Your task to perform on an android device: add a contact Image 0: 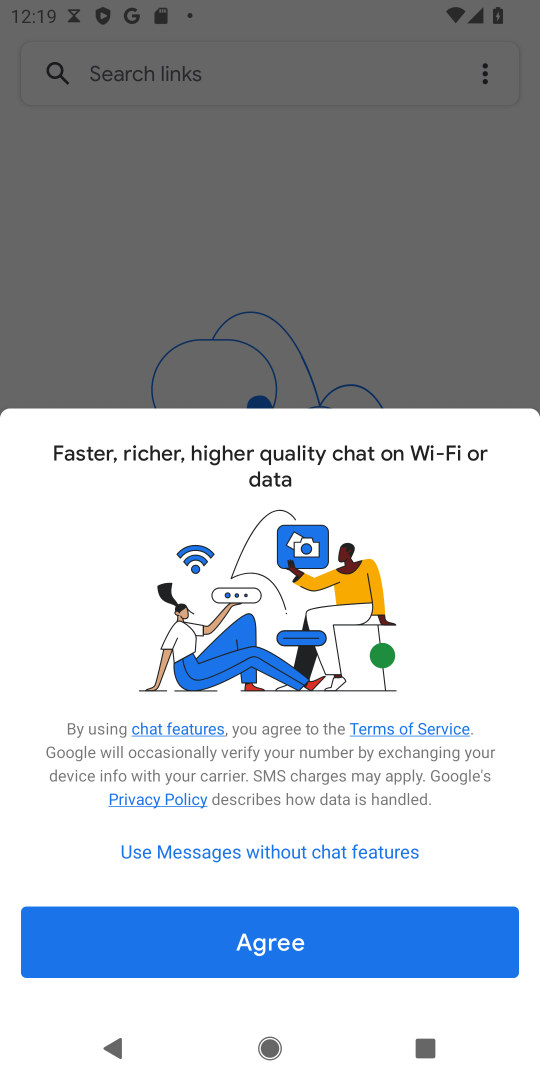
Step 0: press home button
Your task to perform on an android device: add a contact Image 1: 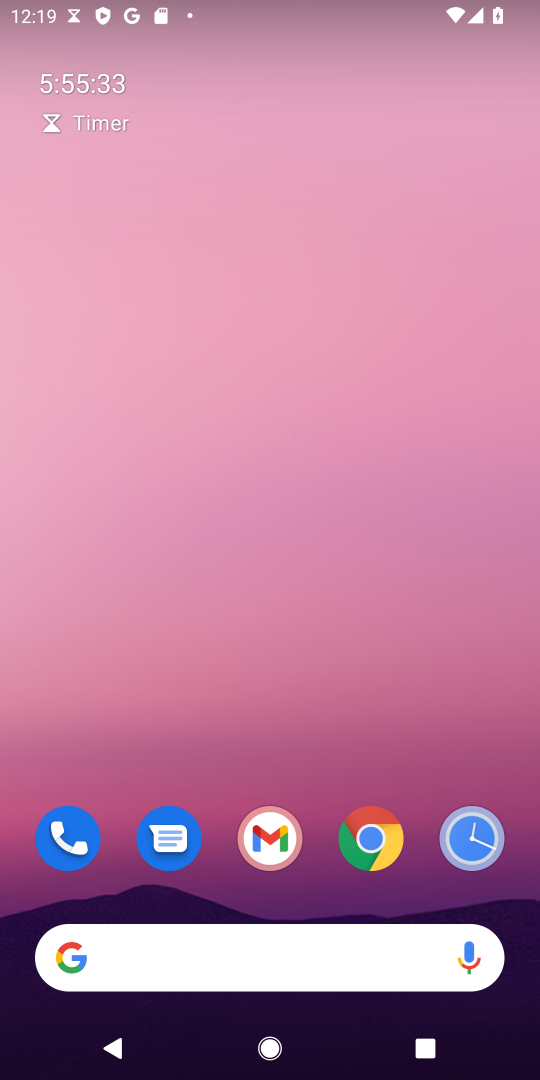
Step 1: drag from (262, 767) to (176, 17)
Your task to perform on an android device: add a contact Image 2: 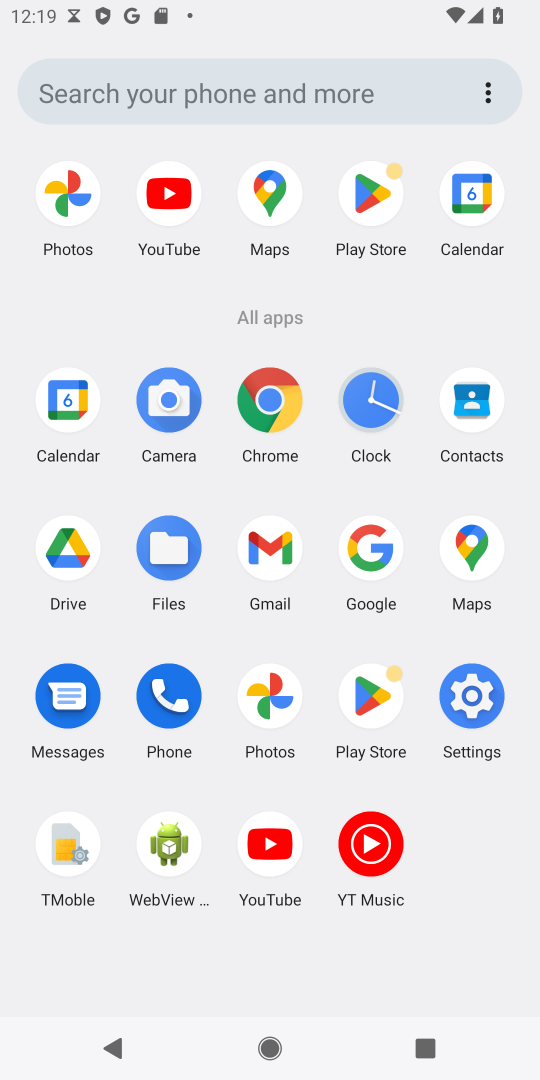
Step 2: click (479, 403)
Your task to perform on an android device: add a contact Image 3: 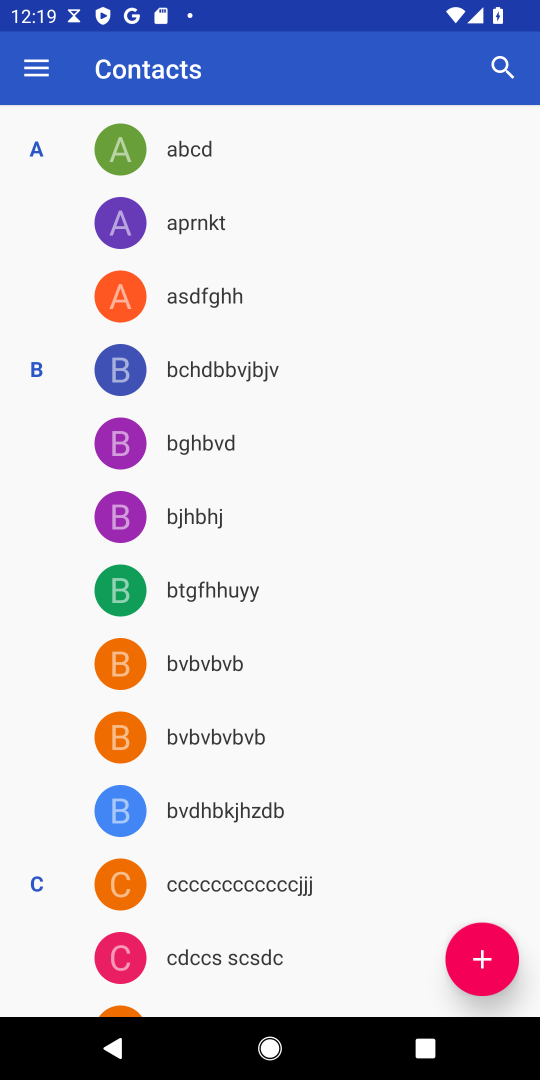
Step 3: click (470, 960)
Your task to perform on an android device: add a contact Image 4: 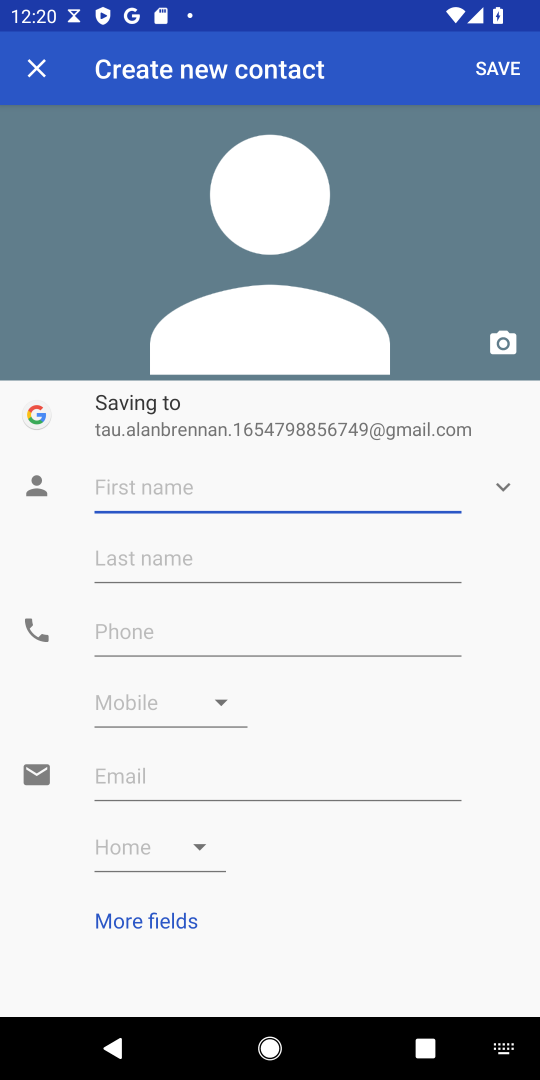
Step 4: type "mnjkhui"
Your task to perform on an android device: add a contact Image 5: 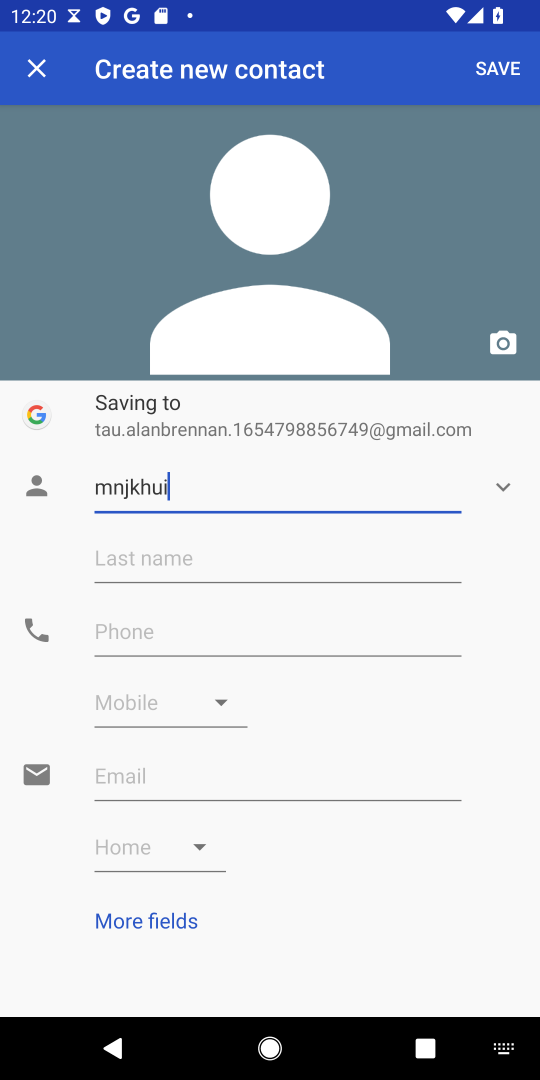
Step 5: click (206, 646)
Your task to perform on an android device: add a contact Image 6: 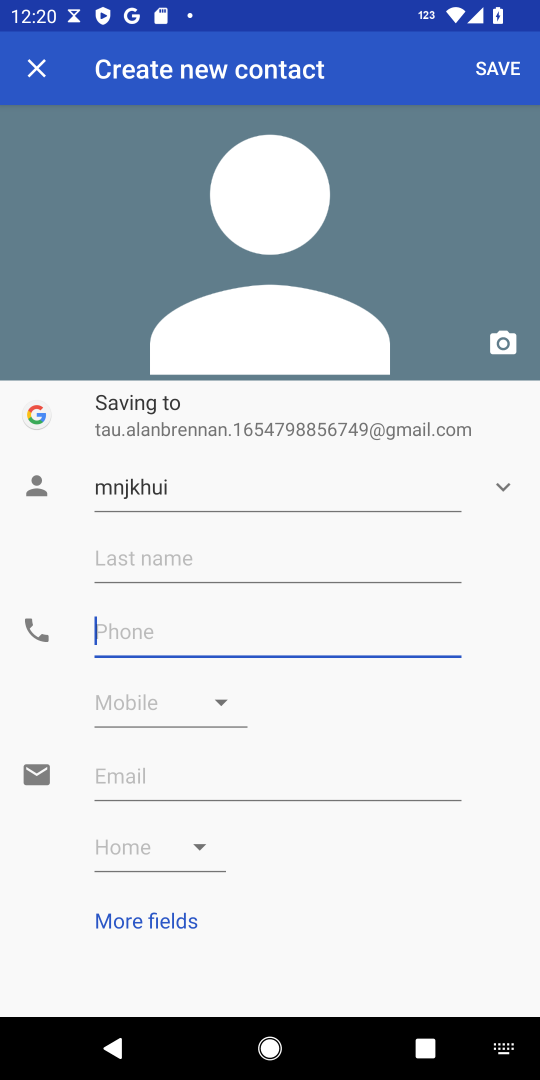
Step 6: type "787878788"
Your task to perform on an android device: add a contact Image 7: 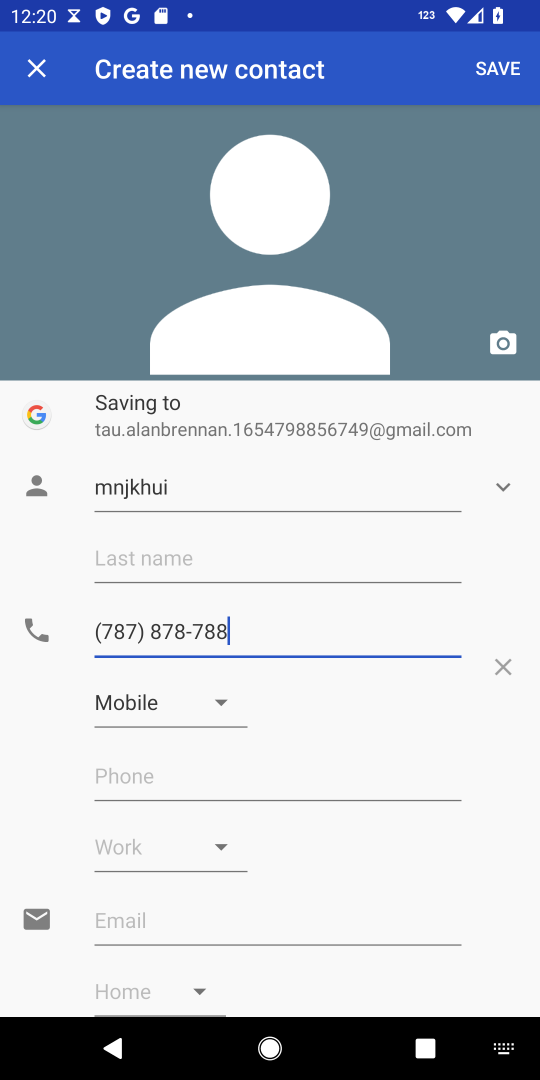
Step 7: click (501, 73)
Your task to perform on an android device: add a contact Image 8: 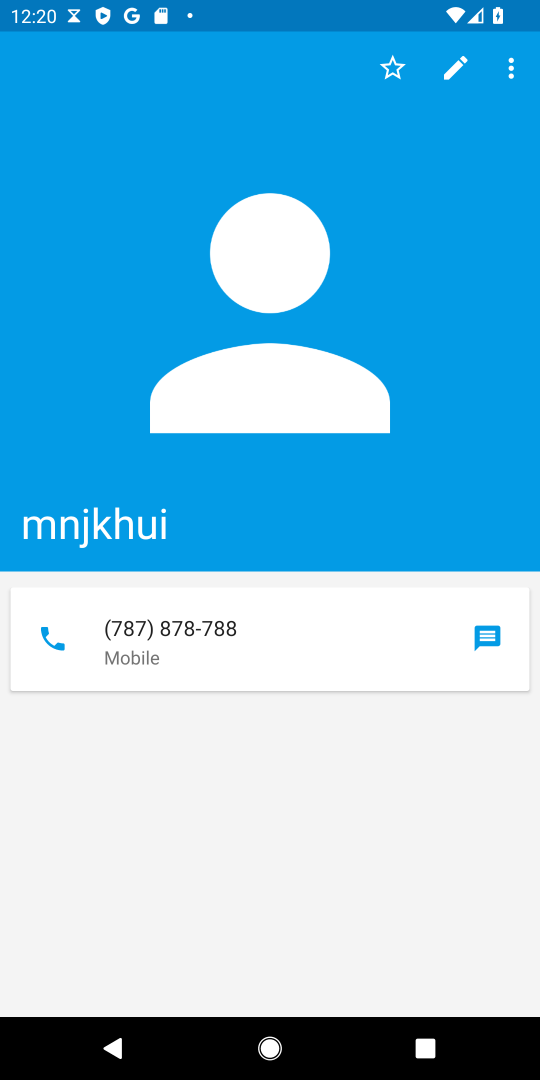
Step 8: task complete